Your task to perform on an android device: empty trash in google photos Image 0: 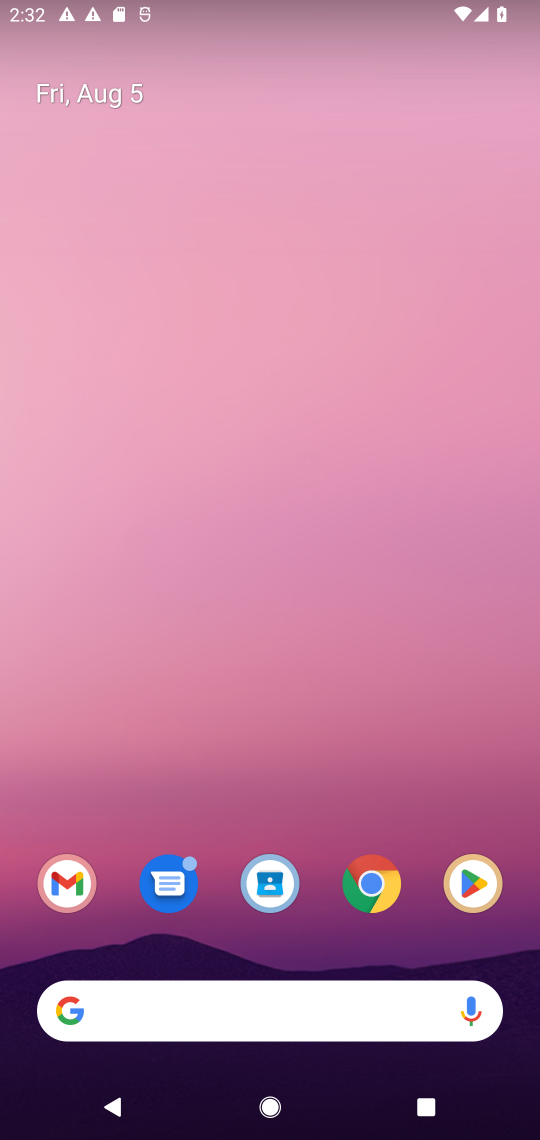
Step 0: press home button
Your task to perform on an android device: empty trash in google photos Image 1: 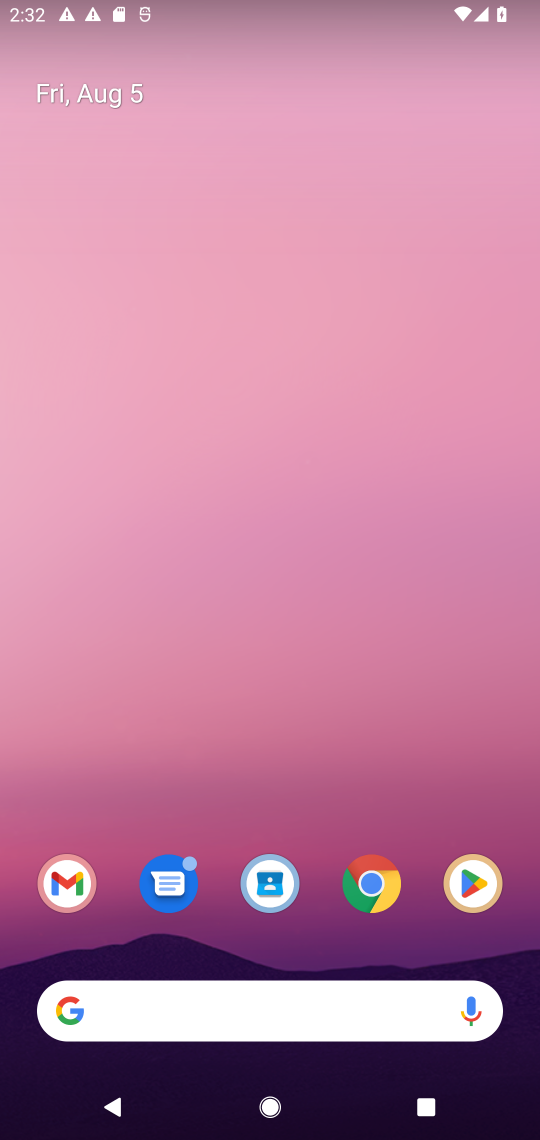
Step 1: drag from (323, 942) to (341, 135)
Your task to perform on an android device: empty trash in google photos Image 2: 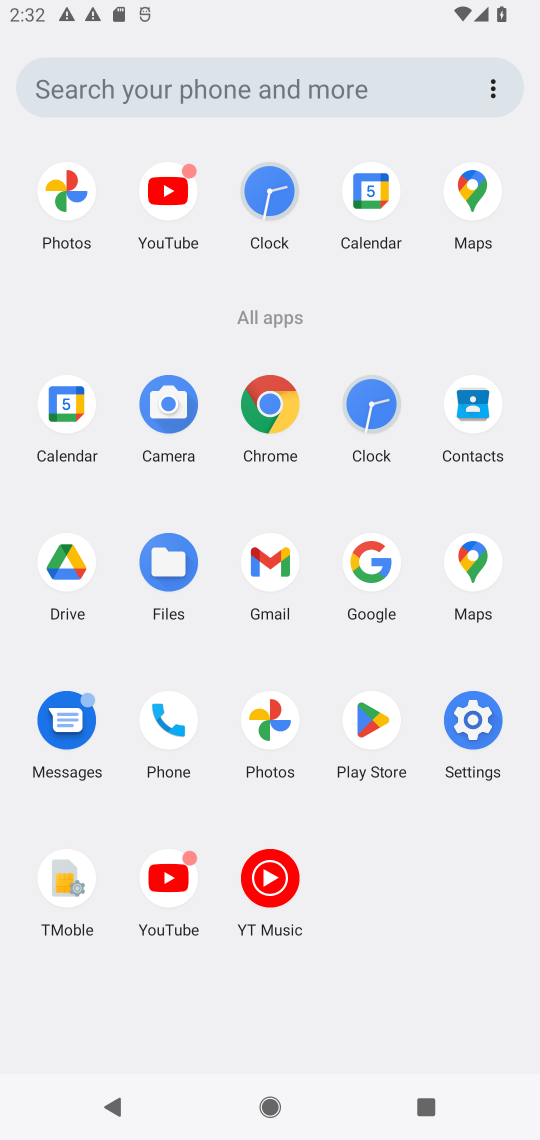
Step 2: click (264, 711)
Your task to perform on an android device: empty trash in google photos Image 3: 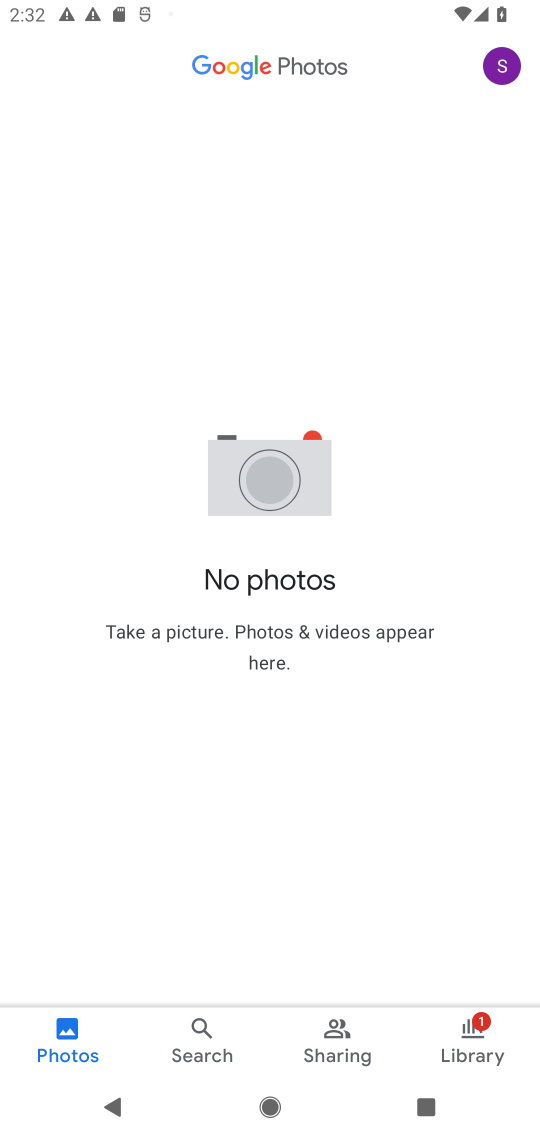
Step 3: click (496, 61)
Your task to perform on an android device: empty trash in google photos Image 4: 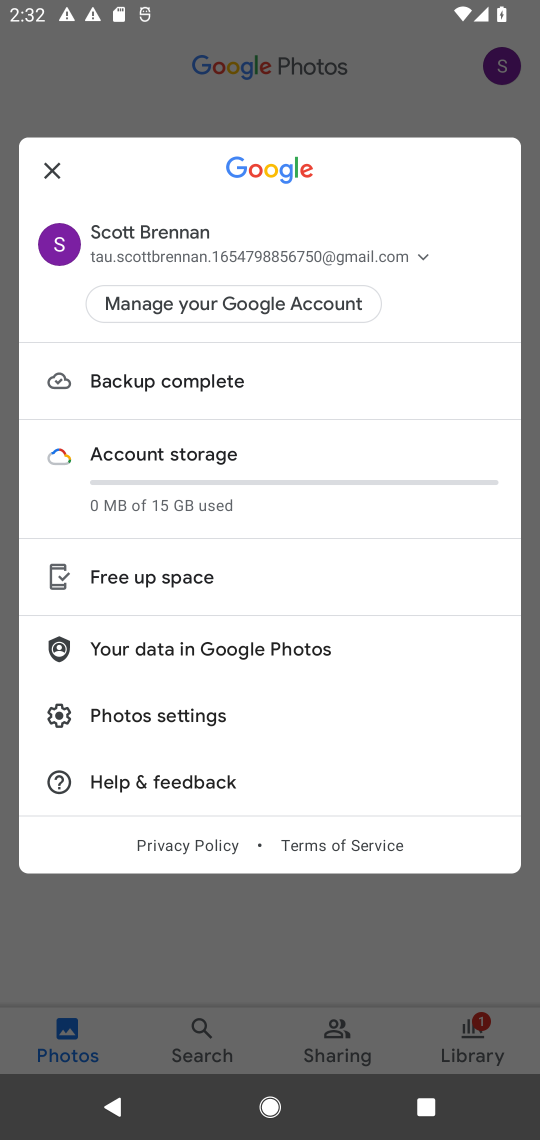
Step 4: click (471, 1009)
Your task to perform on an android device: empty trash in google photos Image 5: 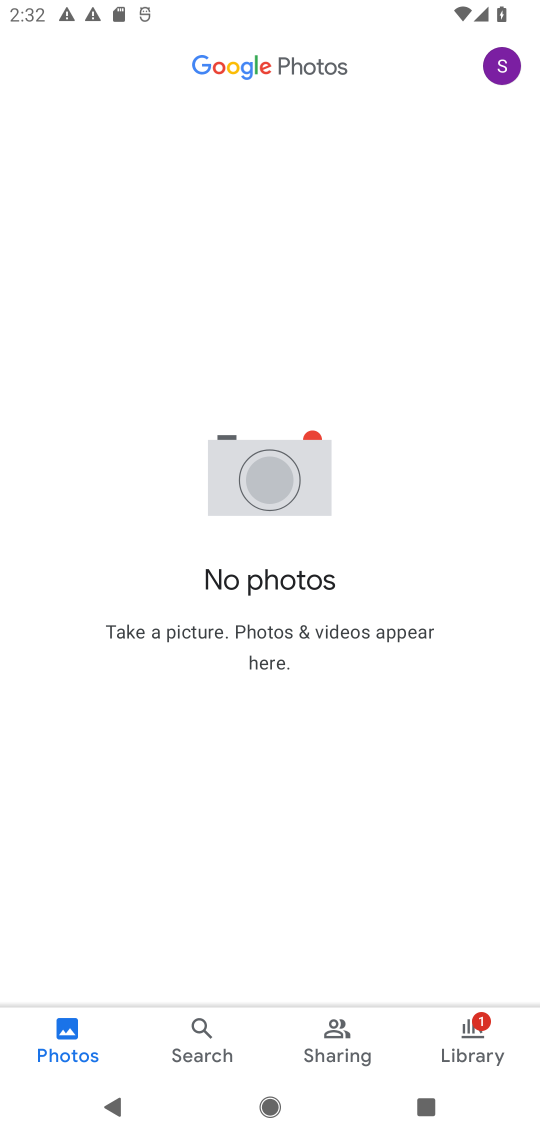
Step 5: click (485, 1022)
Your task to perform on an android device: empty trash in google photos Image 6: 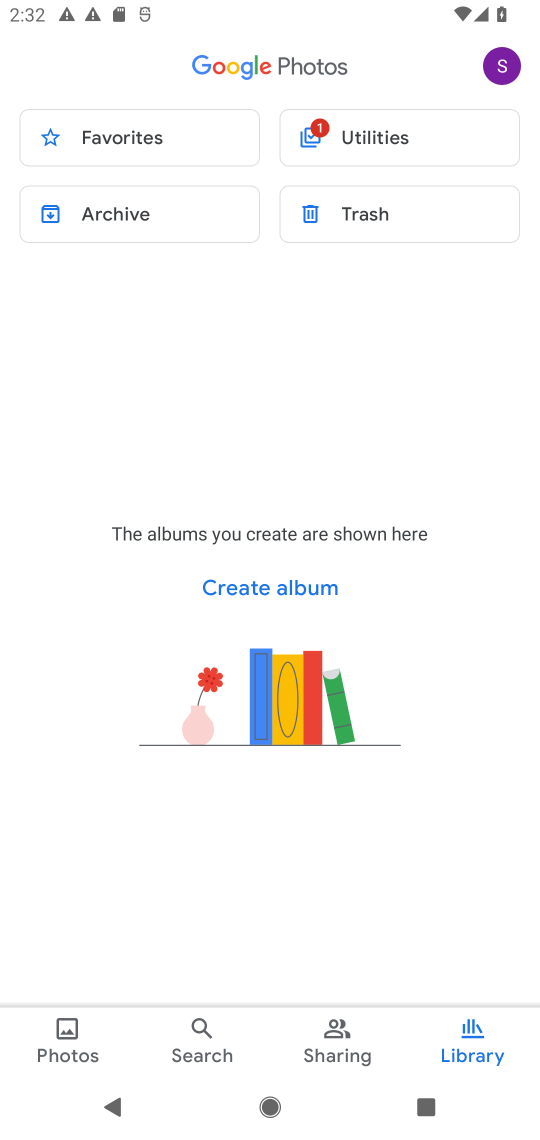
Step 6: click (348, 202)
Your task to perform on an android device: empty trash in google photos Image 7: 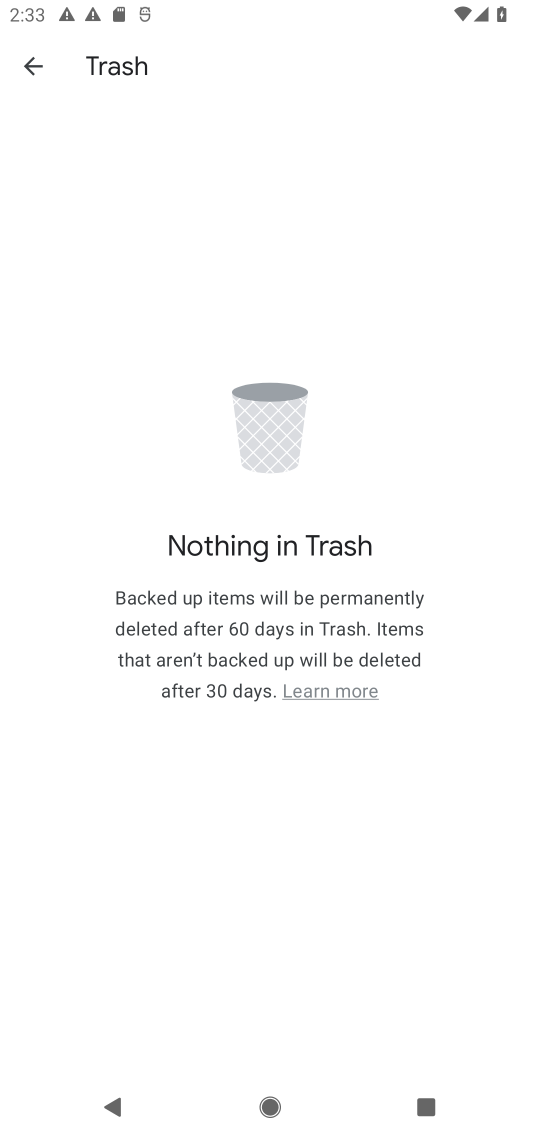
Step 7: task complete